Your task to perform on an android device: What's the weather? Image 0: 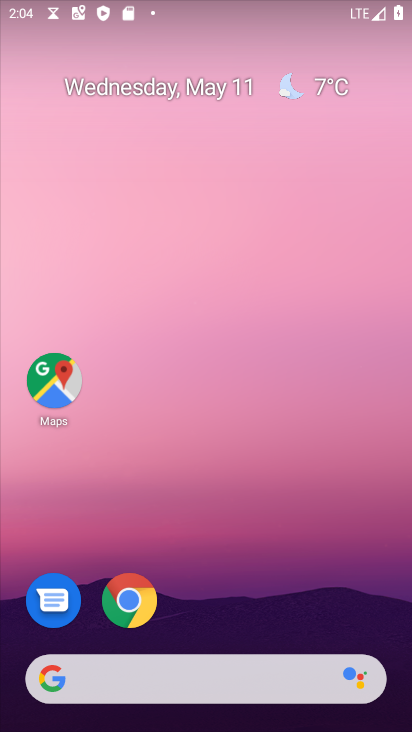
Step 0: click (327, 89)
Your task to perform on an android device: What's the weather? Image 1: 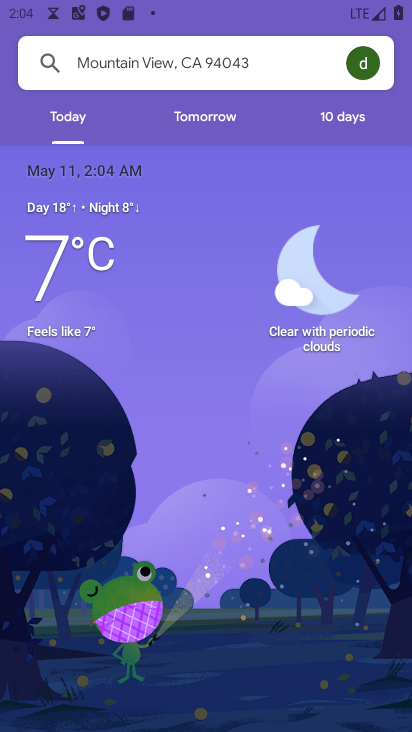
Step 1: task complete